Your task to perform on an android device: Open my contact list Image 0: 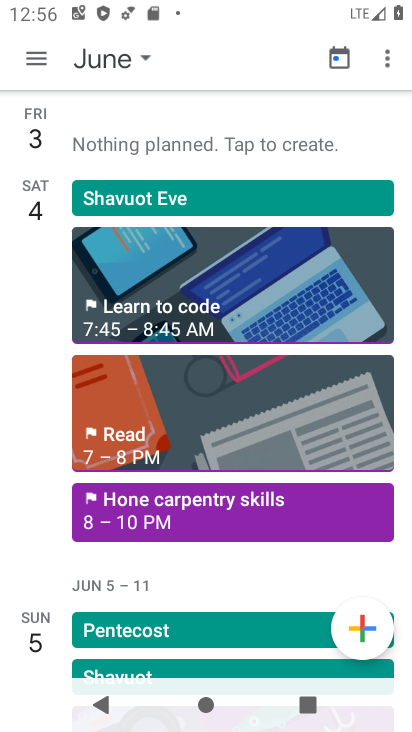
Step 0: click (333, 142)
Your task to perform on an android device: Open my contact list Image 1: 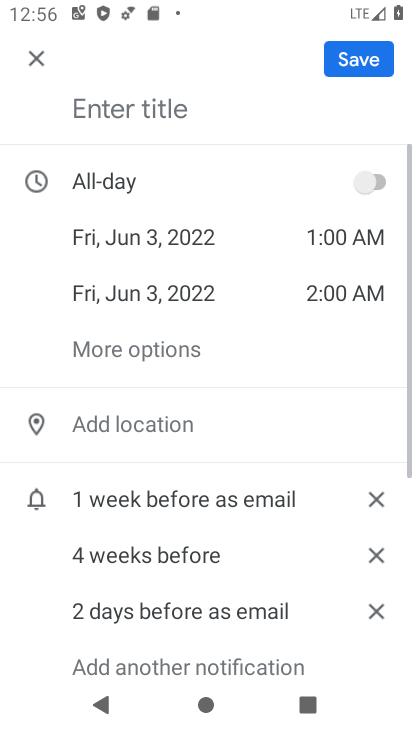
Step 1: press home button
Your task to perform on an android device: Open my contact list Image 2: 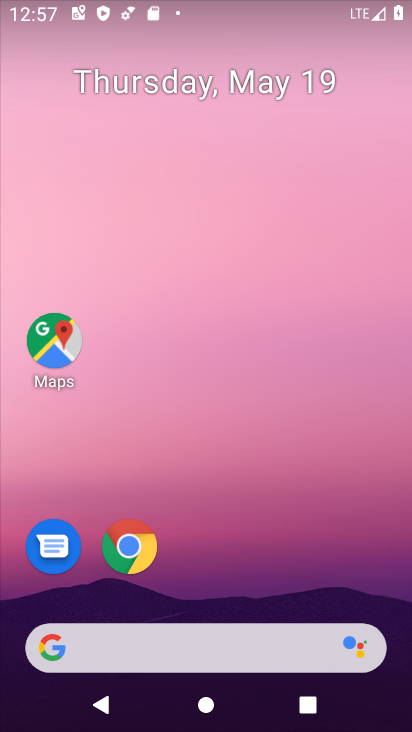
Step 2: drag from (182, 611) to (173, 230)
Your task to perform on an android device: Open my contact list Image 3: 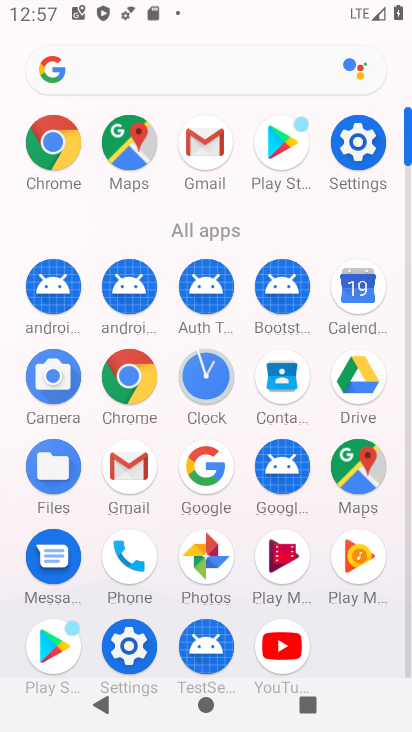
Step 3: click (286, 363)
Your task to perform on an android device: Open my contact list Image 4: 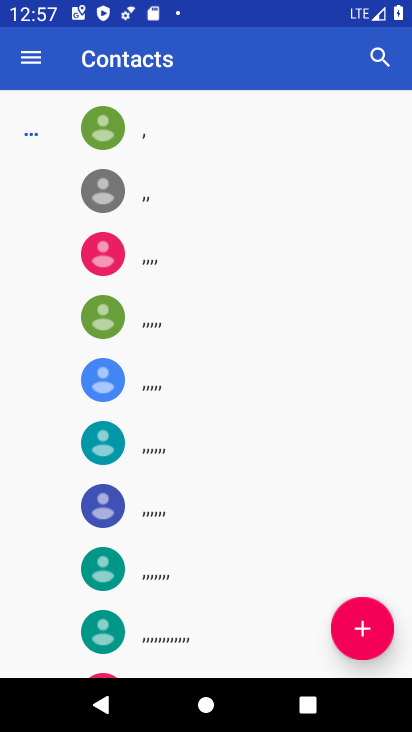
Step 4: task complete